Your task to perform on an android device: Open notification settings Image 0: 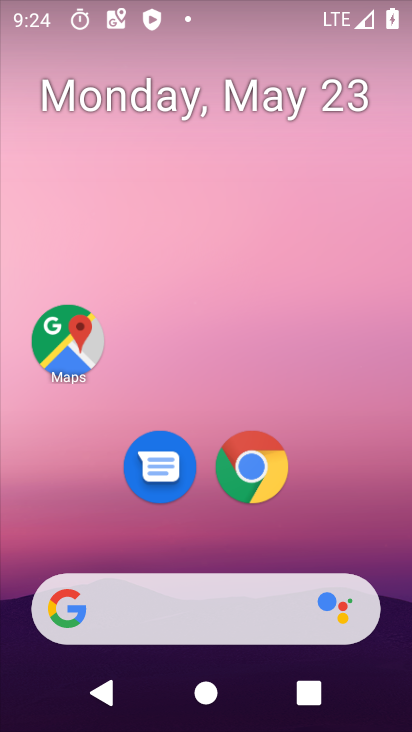
Step 0: drag from (297, 534) to (155, 5)
Your task to perform on an android device: Open notification settings Image 1: 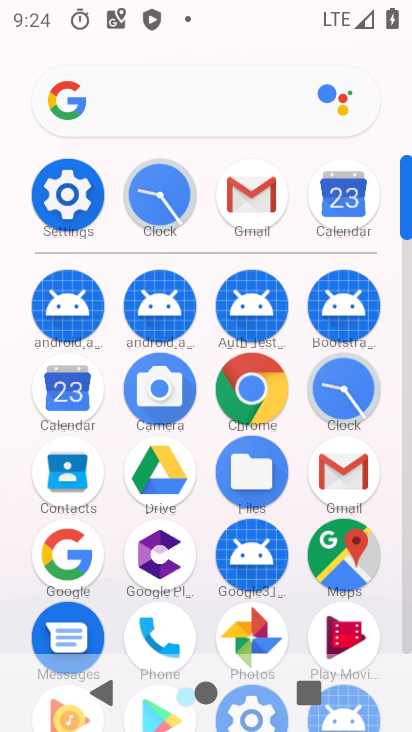
Step 1: click (84, 192)
Your task to perform on an android device: Open notification settings Image 2: 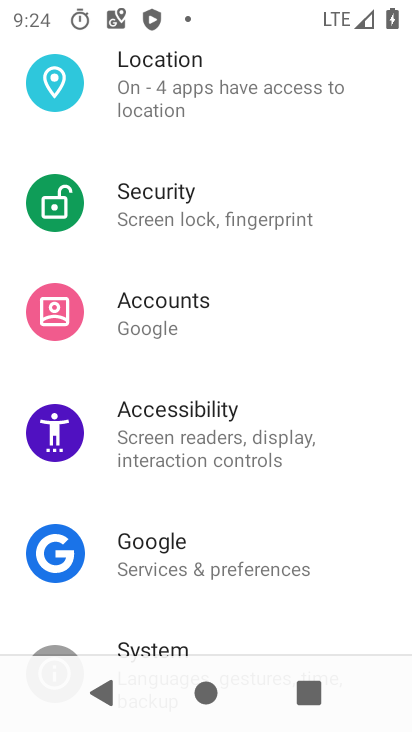
Step 2: drag from (242, 133) to (238, 719)
Your task to perform on an android device: Open notification settings Image 3: 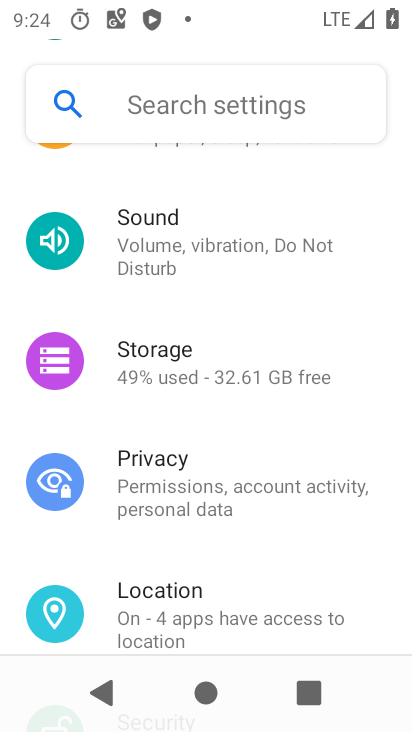
Step 3: drag from (198, 207) to (203, 706)
Your task to perform on an android device: Open notification settings Image 4: 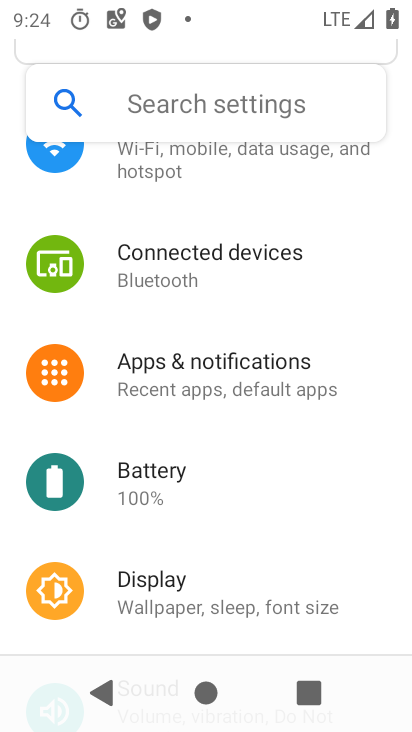
Step 4: click (214, 371)
Your task to perform on an android device: Open notification settings Image 5: 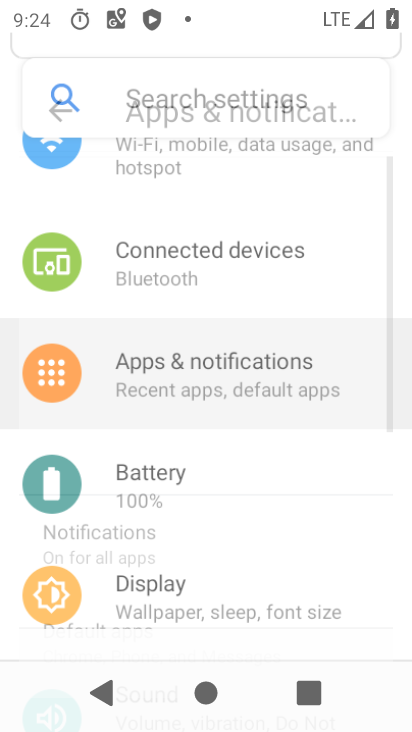
Step 5: task complete